Your task to perform on an android device: Show me recent news Image 0: 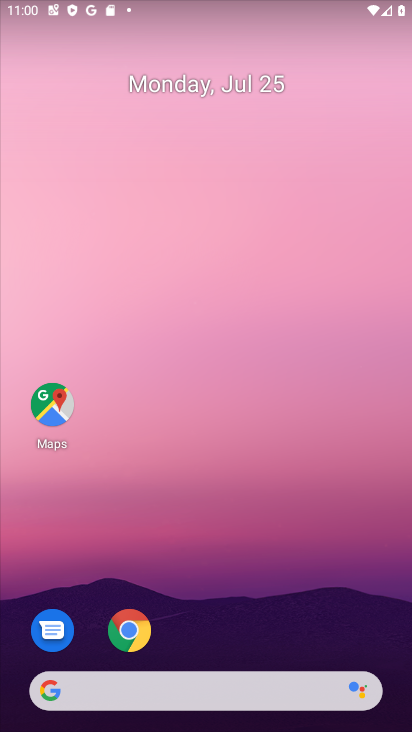
Step 0: click (86, 684)
Your task to perform on an android device: Show me recent news Image 1: 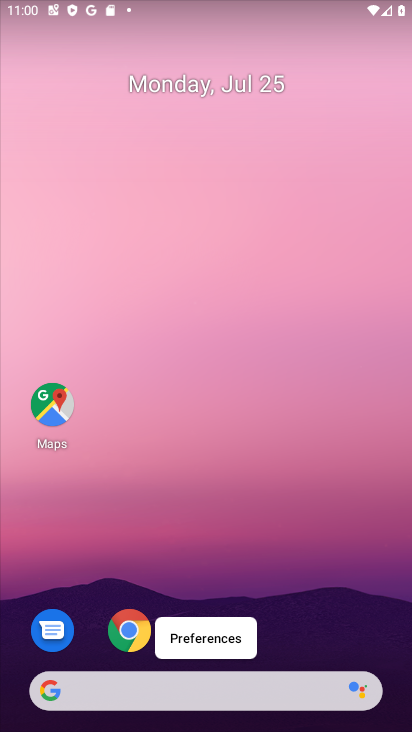
Step 1: click (105, 696)
Your task to perform on an android device: Show me recent news Image 2: 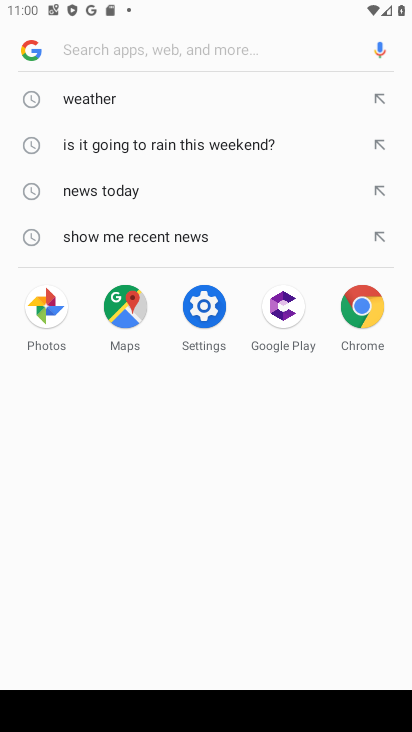
Step 2: type "recent news "
Your task to perform on an android device: Show me recent news Image 3: 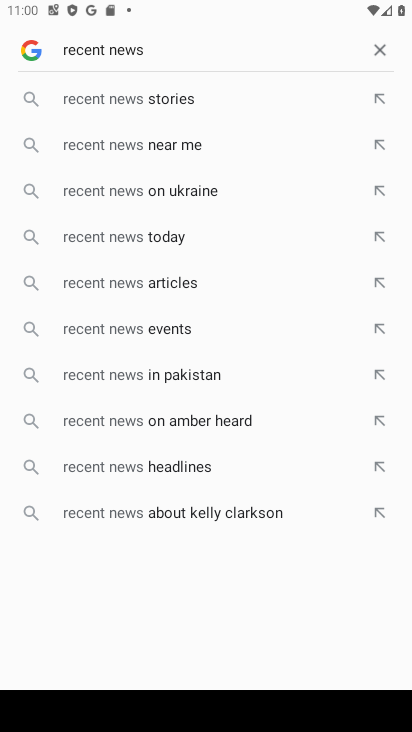
Step 3: click (116, 249)
Your task to perform on an android device: Show me recent news Image 4: 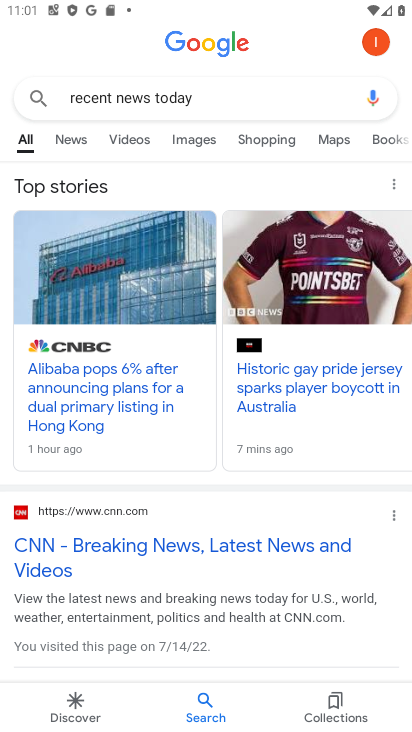
Step 4: click (301, 312)
Your task to perform on an android device: Show me recent news Image 5: 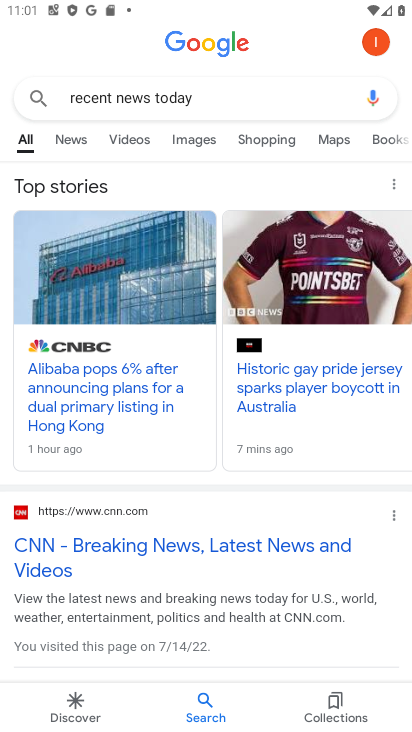
Step 5: click (279, 412)
Your task to perform on an android device: Show me recent news Image 6: 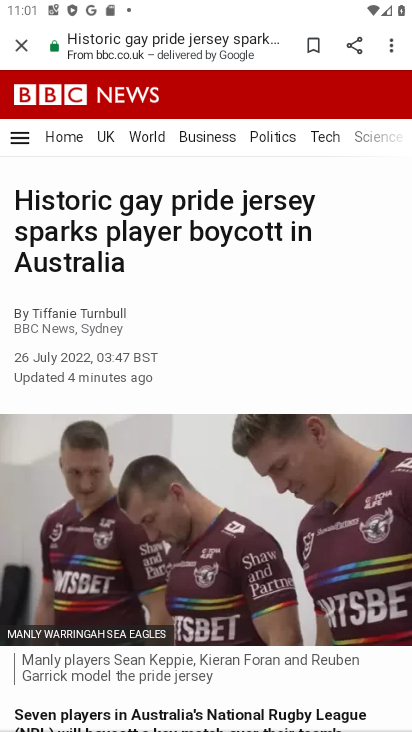
Step 6: task complete